Your task to perform on an android device: search for starred emails in the gmail app Image 0: 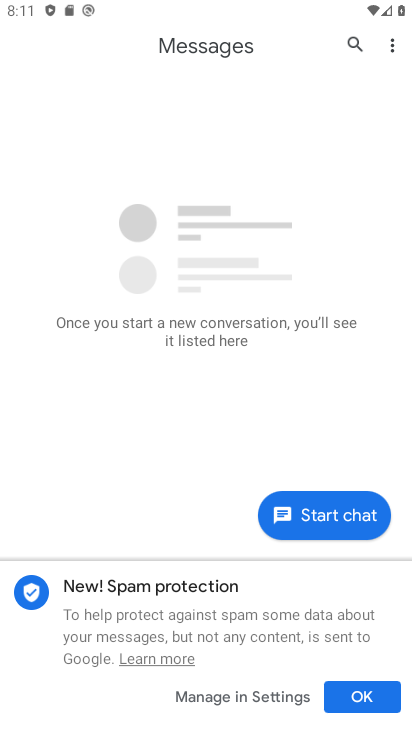
Step 0: press home button
Your task to perform on an android device: search for starred emails in the gmail app Image 1: 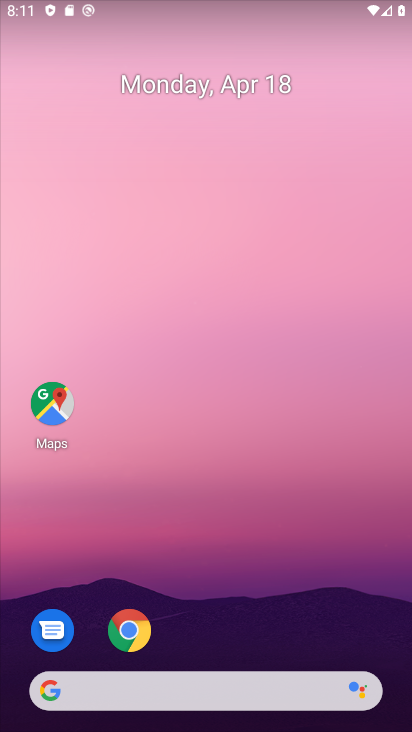
Step 1: drag from (217, 640) to (297, 0)
Your task to perform on an android device: search for starred emails in the gmail app Image 2: 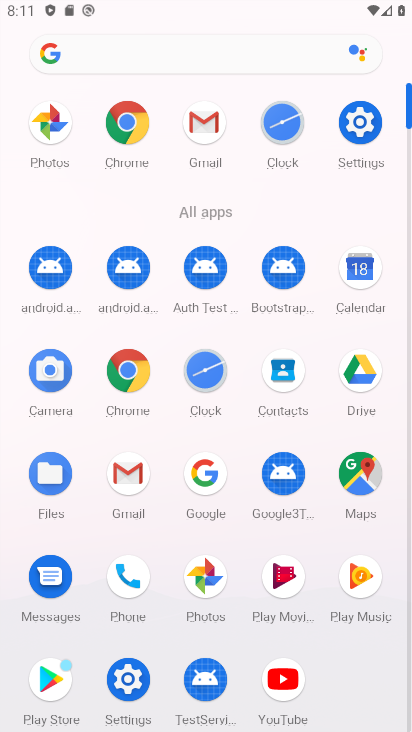
Step 2: click (137, 474)
Your task to perform on an android device: search for starred emails in the gmail app Image 3: 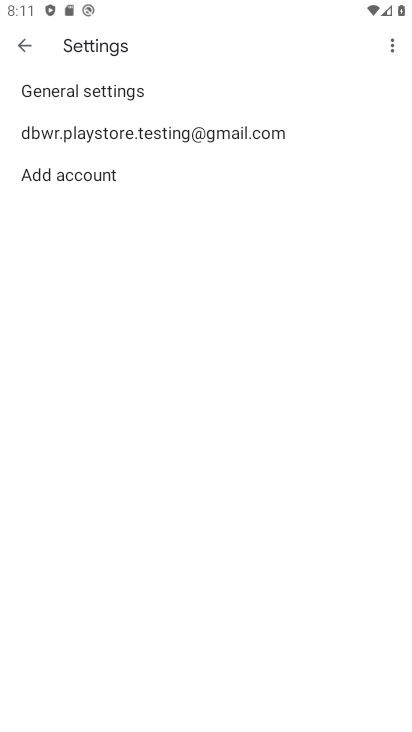
Step 3: click (32, 46)
Your task to perform on an android device: search for starred emails in the gmail app Image 4: 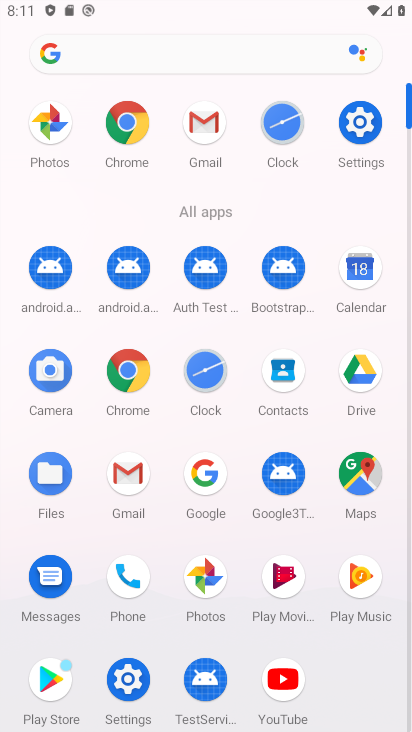
Step 4: click (128, 480)
Your task to perform on an android device: search for starred emails in the gmail app Image 5: 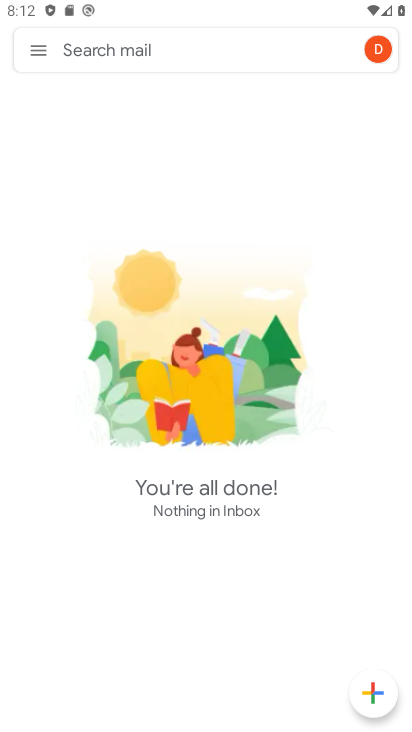
Step 5: click (35, 44)
Your task to perform on an android device: search for starred emails in the gmail app Image 6: 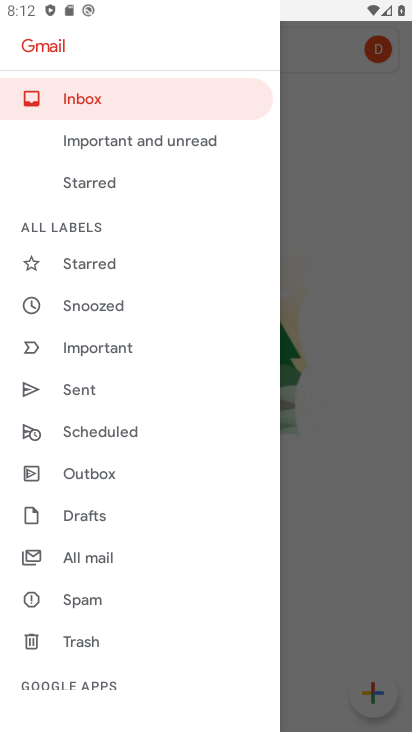
Step 6: click (112, 261)
Your task to perform on an android device: search for starred emails in the gmail app Image 7: 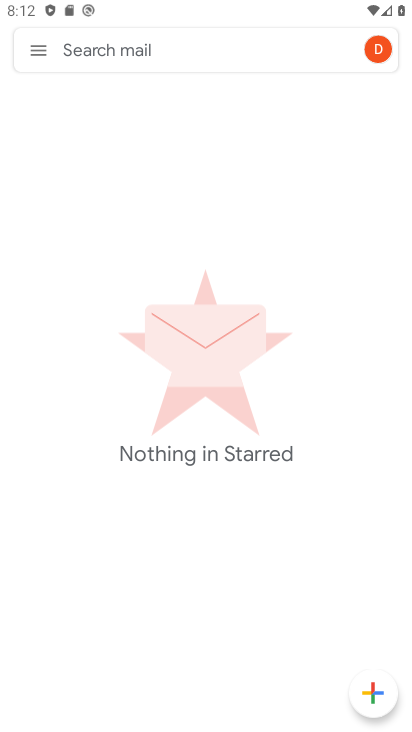
Step 7: task complete